Your task to perform on an android device: Go to wifi settings Image 0: 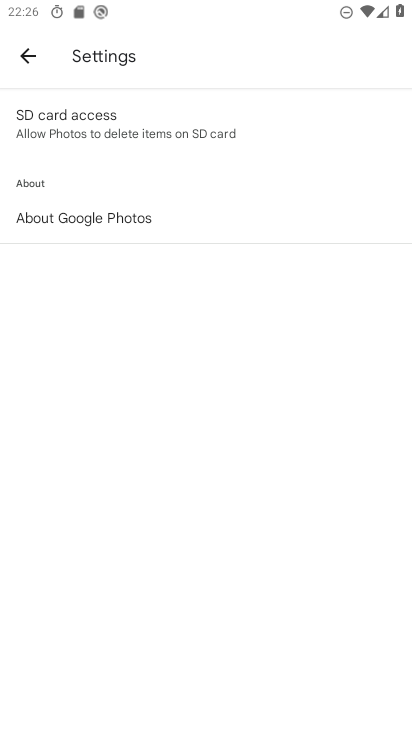
Step 0: press home button
Your task to perform on an android device: Go to wifi settings Image 1: 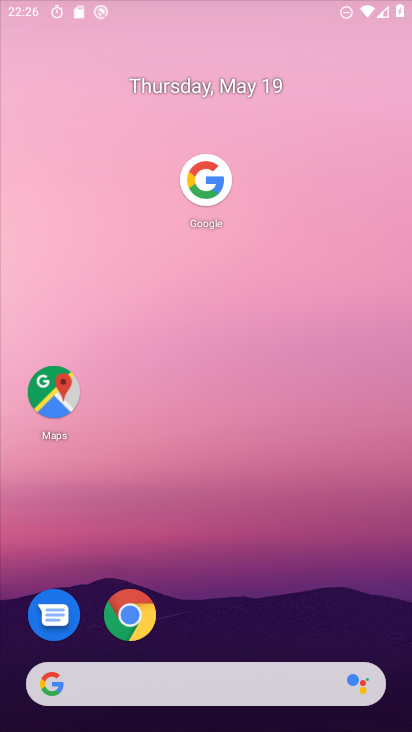
Step 1: drag from (218, 516) to (284, 41)
Your task to perform on an android device: Go to wifi settings Image 2: 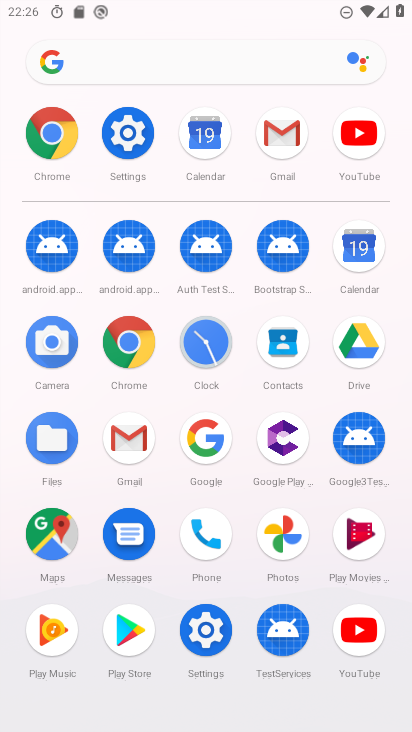
Step 2: click (131, 139)
Your task to perform on an android device: Go to wifi settings Image 3: 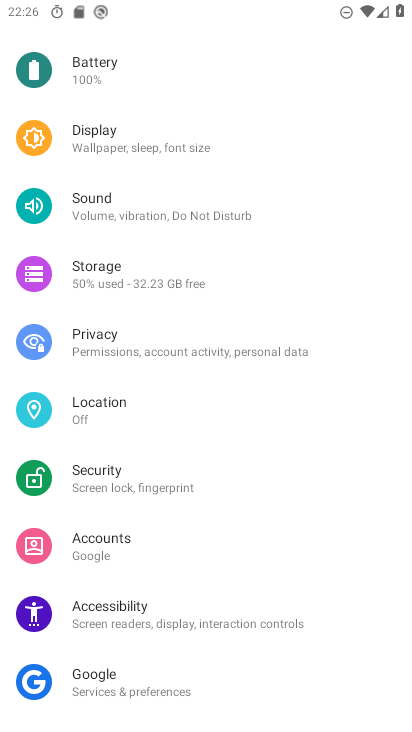
Step 3: drag from (179, 96) to (278, 608)
Your task to perform on an android device: Go to wifi settings Image 4: 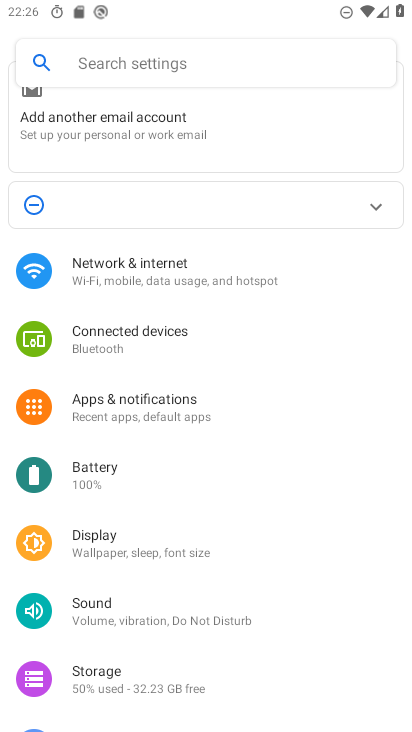
Step 4: click (163, 267)
Your task to perform on an android device: Go to wifi settings Image 5: 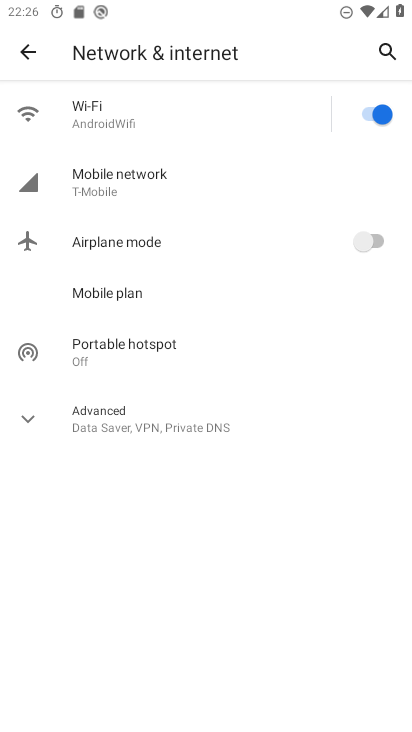
Step 5: click (143, 126)
Your task to perform on an android device: Go to wifi settings Image 6: 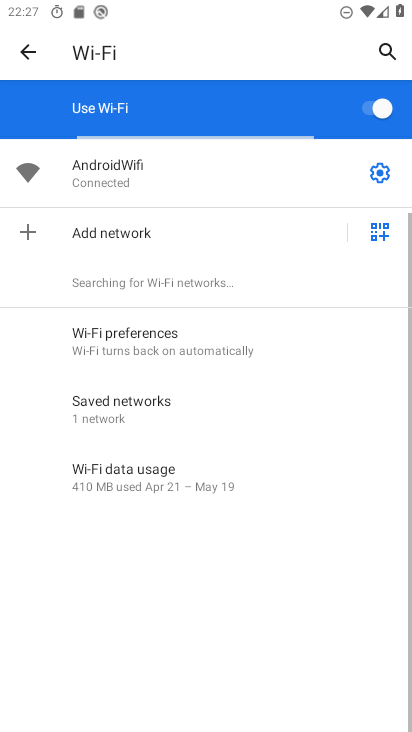
Step 6: click (370, 172)
Your task to perform on an android device: Go to wifi settings Image 7: 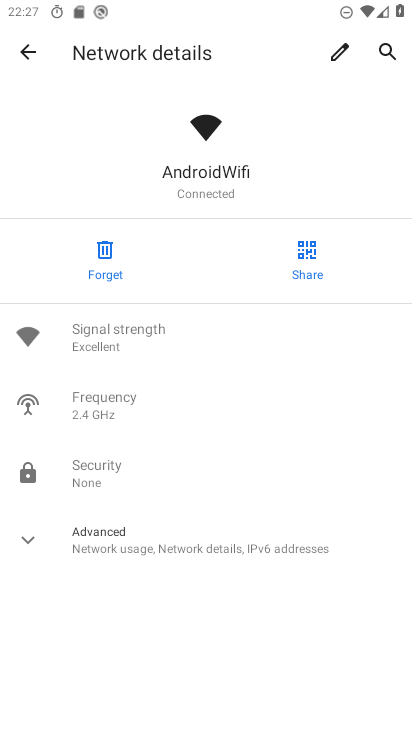
Step 7: task complete